Your task to perform on an android device: Open calendar and show me the second week of next month Image 0: 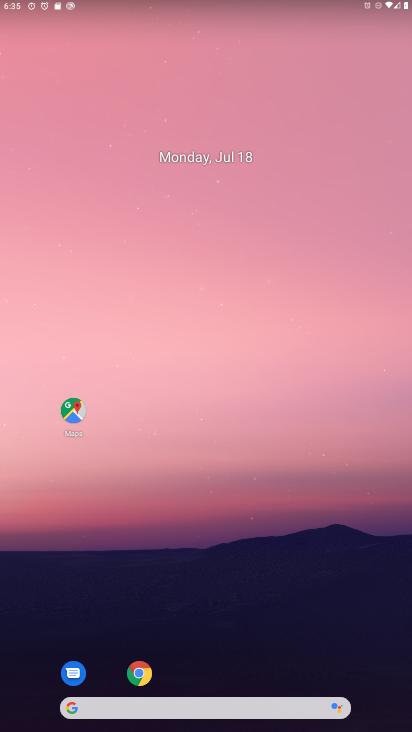
Step 0: drag from (259, 626) to (229, 165)
Your task to perform on an android device: Open calendar and show me the second week of next month Image 1: 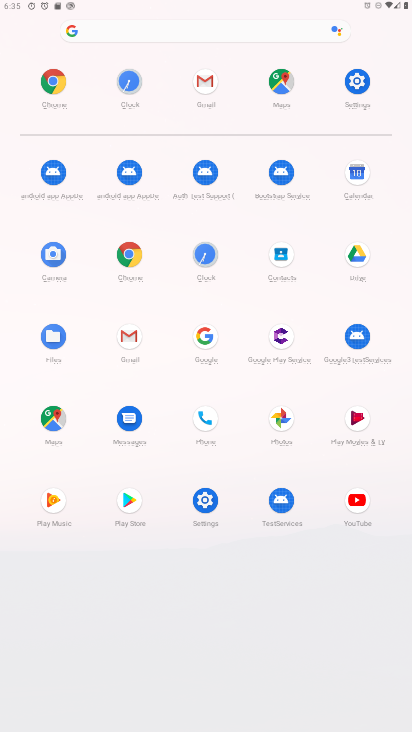
Step 1: click (358, 177)
Your task to perform on an android device: Open calendar and show me the second week of next month Image 2: 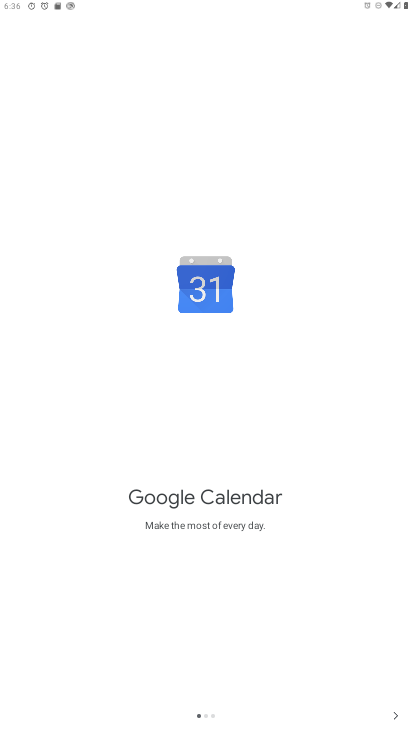
Step 2: click (395, 715)
Your task to perform on an android device: Open calendar and show me the second week of next month Image 3: 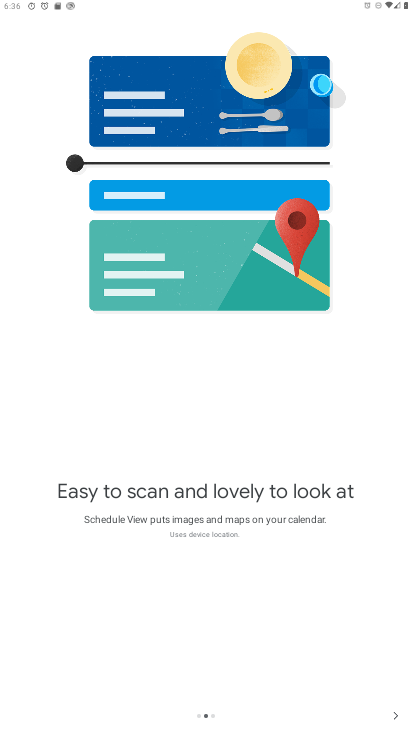
Step 3: click (394, 715)
Your task to perform on an android device: Open calendar and show me the second week of next month Image 4: 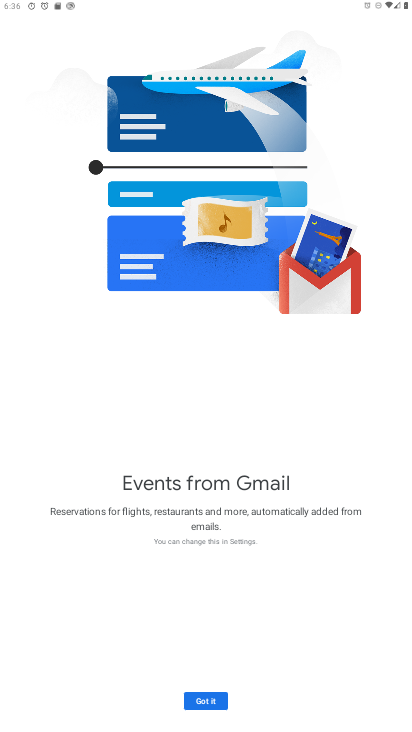
Step 4: click (197, 693)
Your task to perform on an android device: Open calendar and show me the second week of next month Image 5: 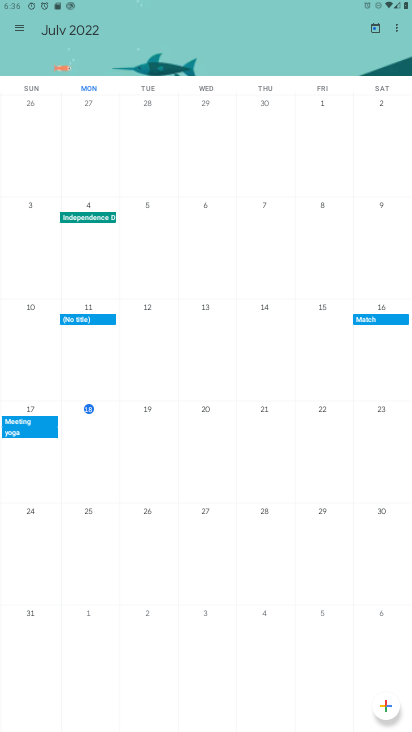
Step 5: task complete